Your task to perform on an android device: Open internet settings Image 0: 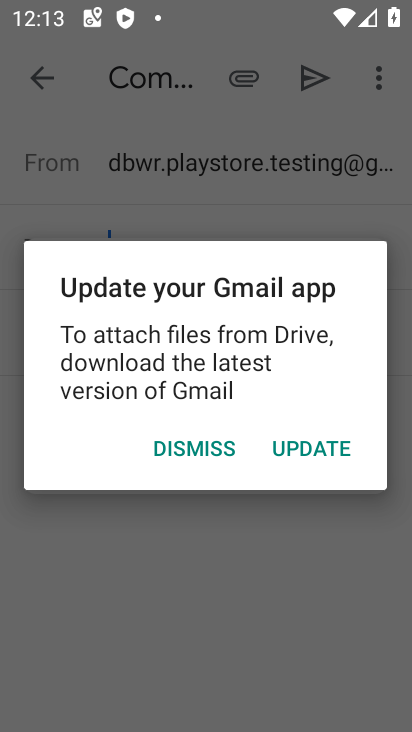
Step 0: press home button
Your task to perform on an android device: Open internet settings Image 1: 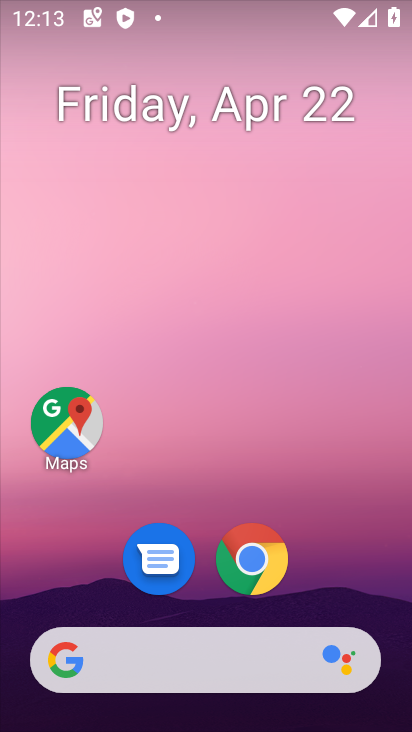
Step 1: drag from (326, 440) to (266, 199)
Your task to perform on an android device: Open internet settings Image 2: 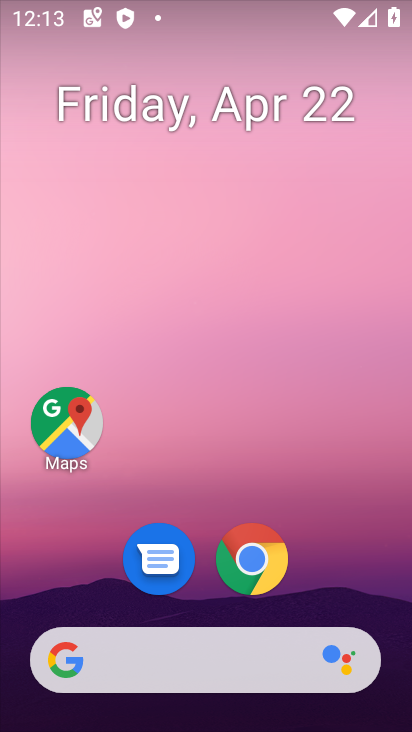
Step 2: drag from (304, 581) to (241, 190)
Your task to perform on an android device: Open internet settings Image 3: 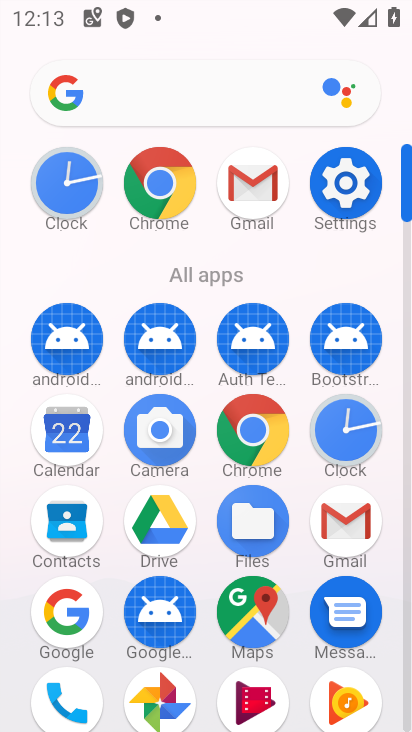
Step 3: drag from (267, 602) to (228, 224)
Your task to perform on an android device: Open internet settings Image 4: 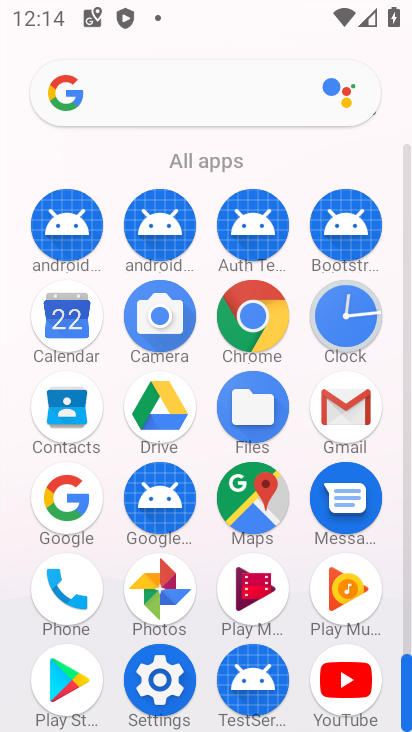
Step 4: click (167, 660)
Your task to perform on an android device: Open internet settings Image 5: 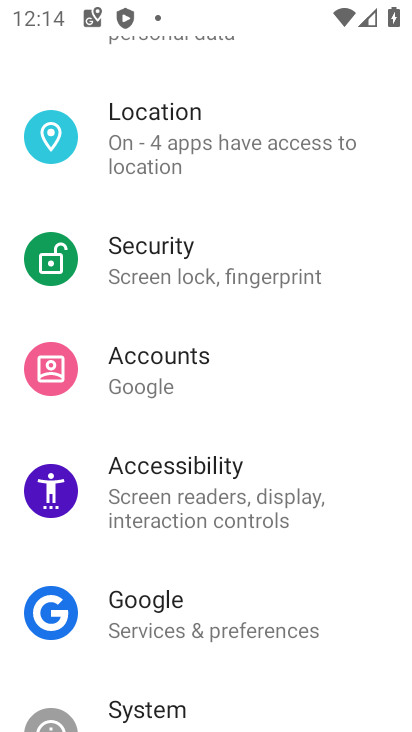
Step 5: drag from (203, 299) to (240, 701)
Your task to perform on an android device: Open internet settings Image 6: 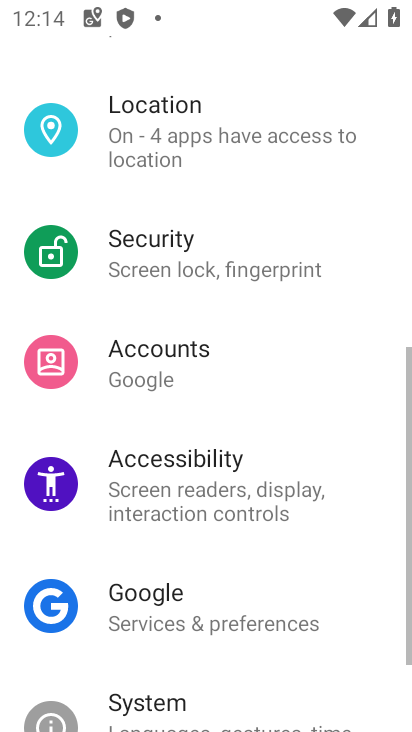
Step 6: drag from (227, 285) to (276, 719)
Your task to perform on an android device: Open internet settings Image 7: 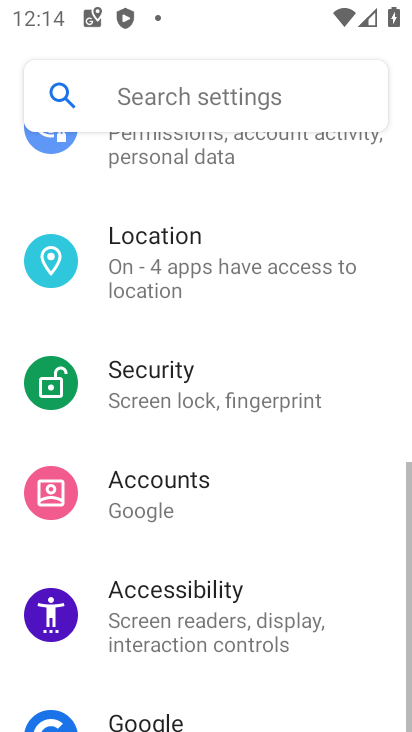
Step 7: drag from (254, 343) to (231, 714)
Your task to perform on an android device: Open internet settings Image 8: 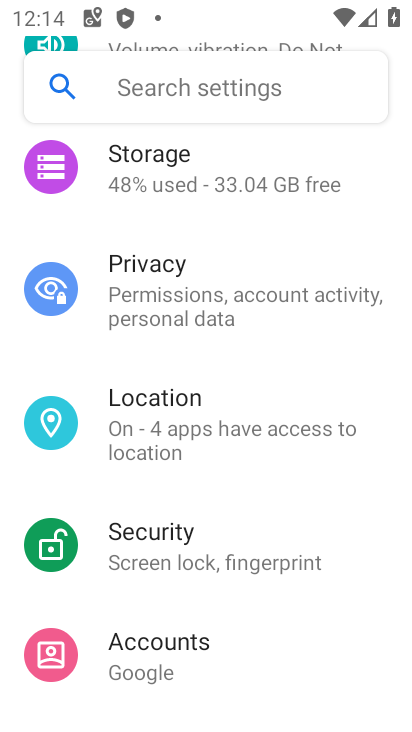
Step 8: drag from (256, 290) to (207, 690)
Your task to perform on an android device: Open internet settings Image 9: 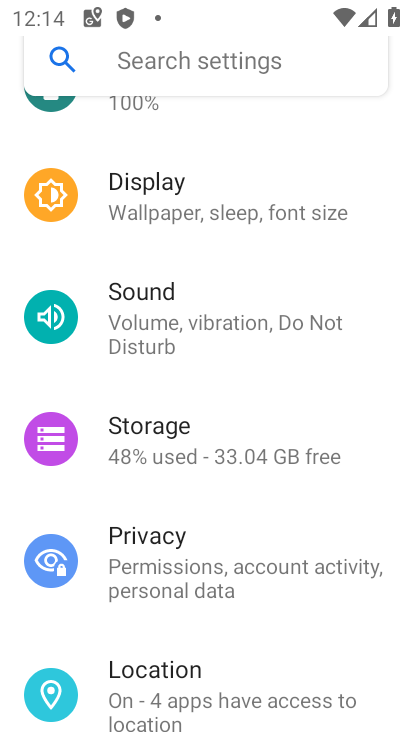
Step 9: drag from (241, 266) to (189, 674)
Your task to perform on an android device: Open internet settings Image 10: 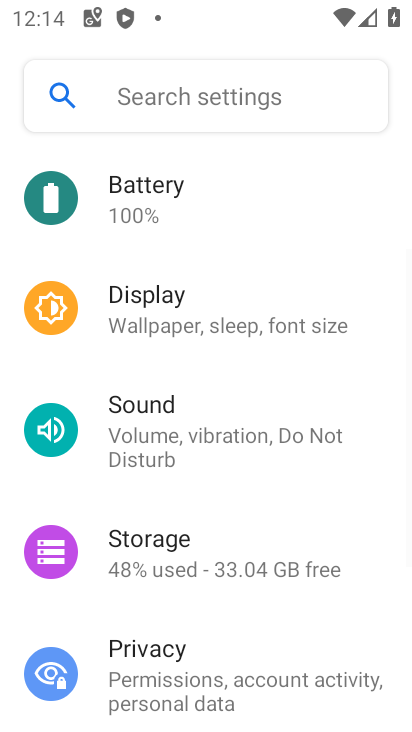
Step 10: drag from (254, 314) to (170, 731)
Your task to perform on an android device: Open internet settings Image 11: 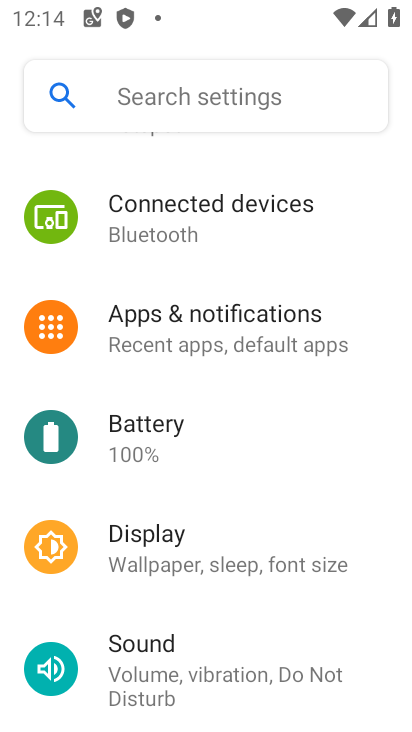
Step 11: drag from (233, 326) to (271, 724)
Your task to perform on an android device: Open internet settings Image 12: 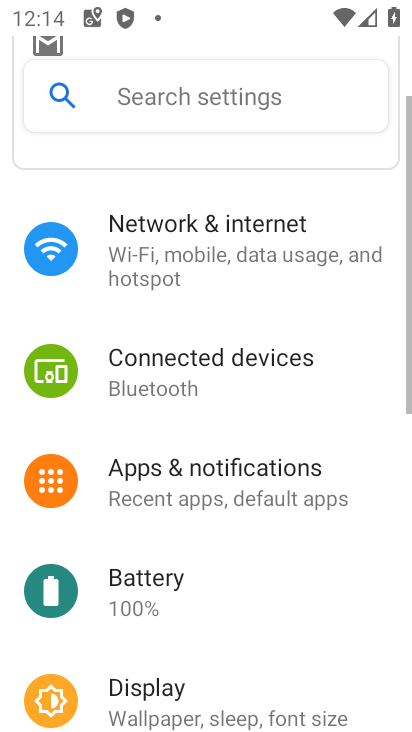
Step 12: click (193, 259)
Your task to perform on an android device: Open internet settings Image 13: 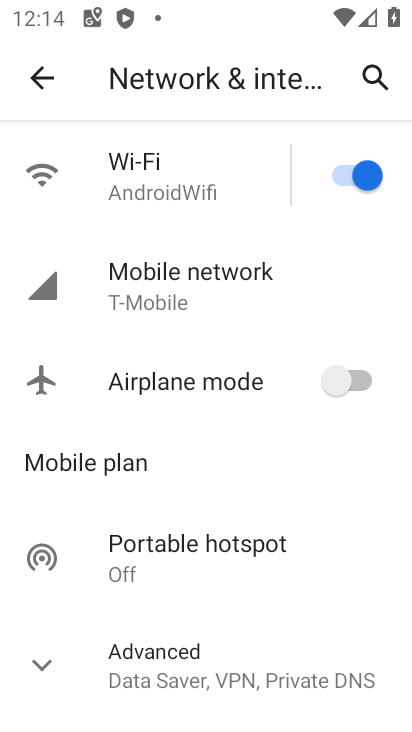
Step 13: click (175, 282)
Your task to perform on an android device: Open internet settings Image 14: 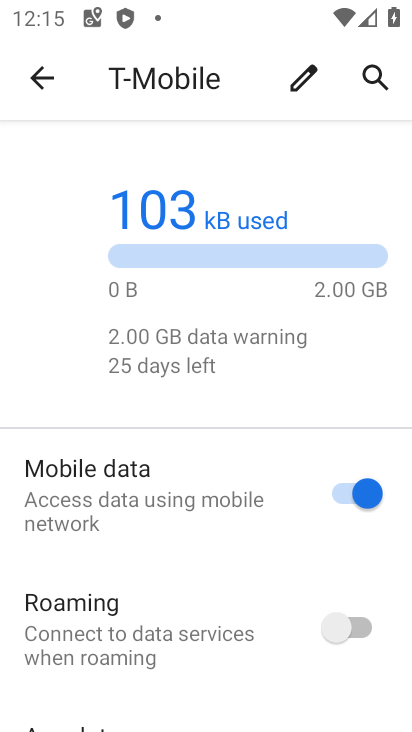
Step 14: task complete